Your task to perform on an android device: open wifi settings Image 0: 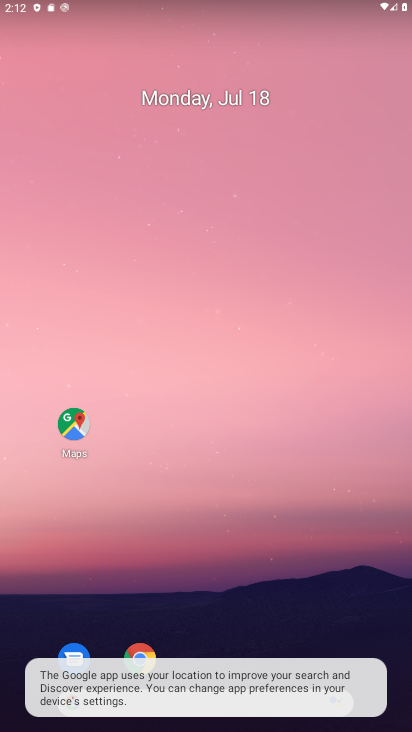
Step 0: drag from (246, 635) to (306, 83)
Your task to perform on an android device: open wifi settings Image 1: 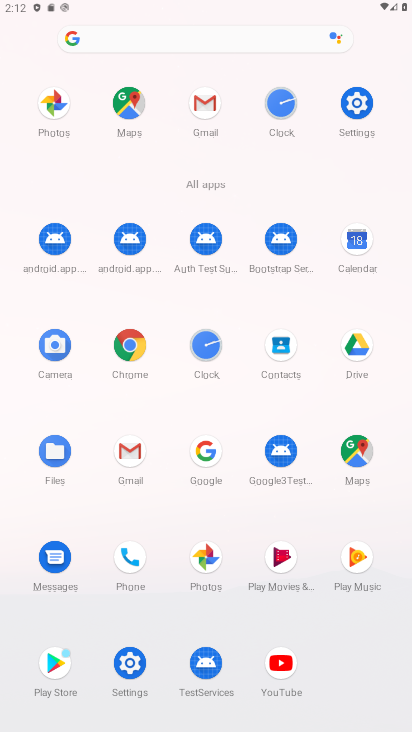
Step 1: click (144, 662)
Your task to perform on an android device: open wifi settings Image 2: 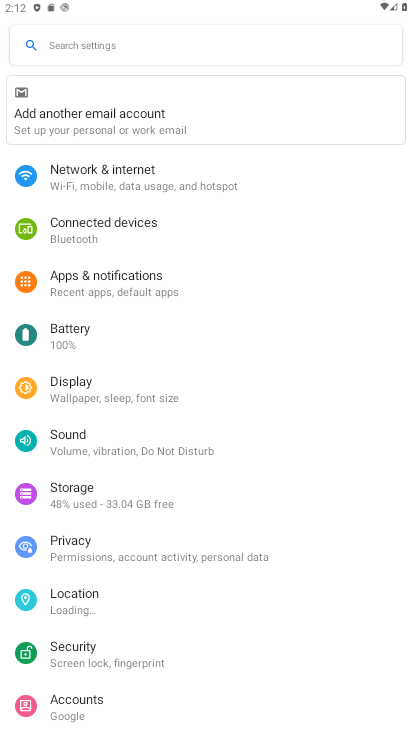
Step 2: click (200, 191)
Your task to perform on an android device: open wifi settings Image 3: 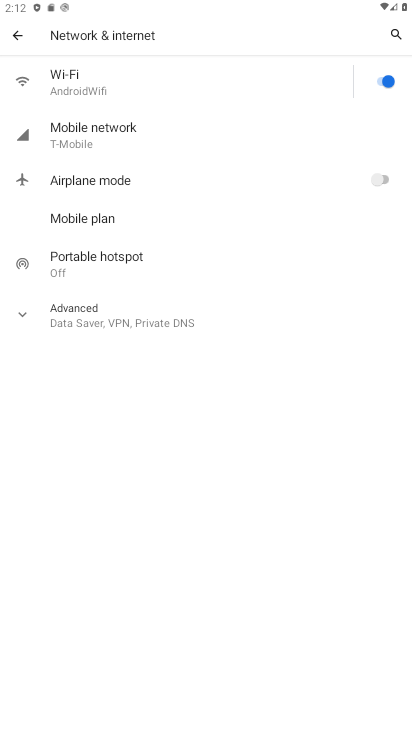
Step 3: click (196, 93)
Your task to perform on an android device: open wifi settings Image 4: 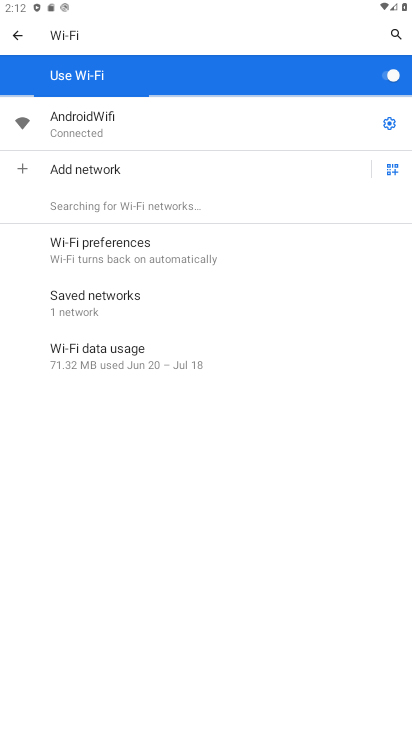
Step 4: task complete